Your task to perform on an android device: Play the last video I watched on Youtube Image 0: 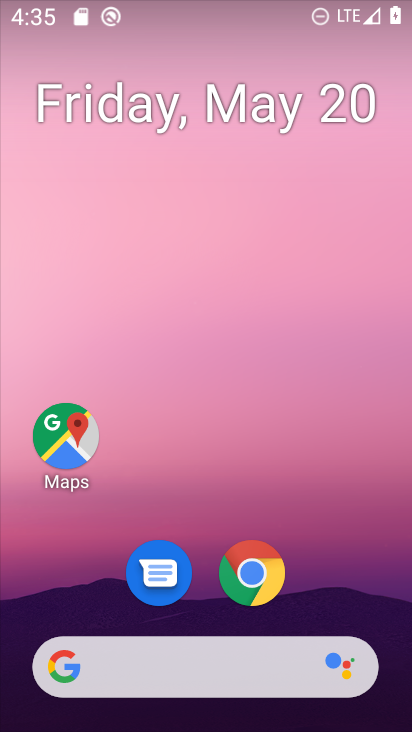
Step 0: drag from (377, 563) to (298, 2)
Your task to perform on an android device: Play the last video I watched on Youtube Image 1: 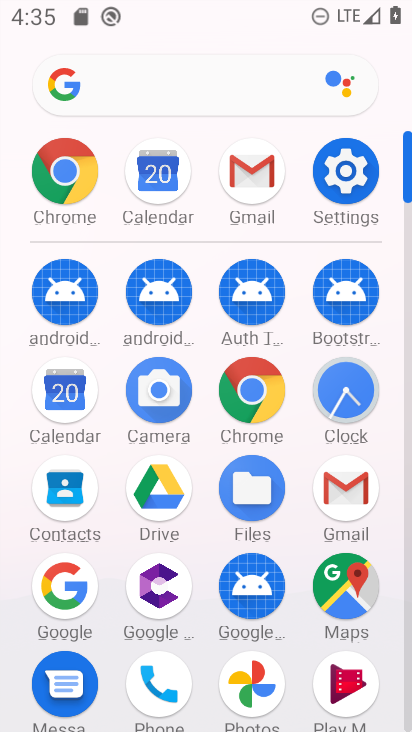
Step 1: click (349, 676)
Your task to perform on an android device: Play the last video I watched on Youtube Image 2: 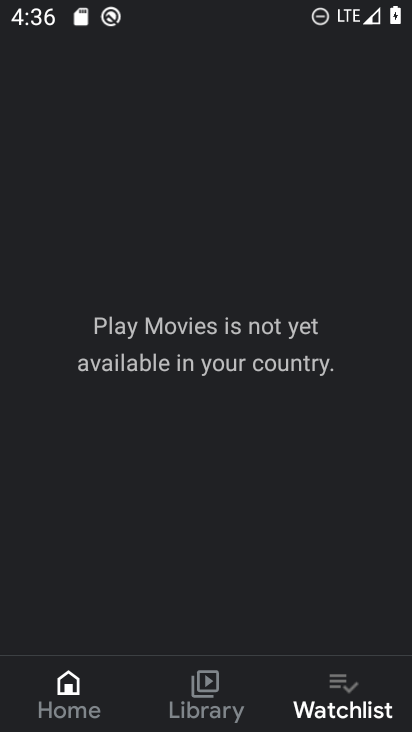
Step 2: press home button
Your task to perform on an android device: Play the last video I watched on Youtube Image 3: 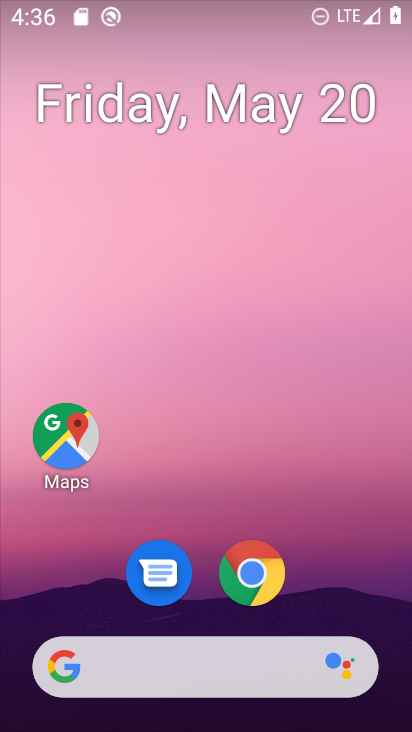
Step 3: drag from (390, 601) to (252, 17)
Your task to perform on an android device: Play the last video I watched on Youtube Image 4: 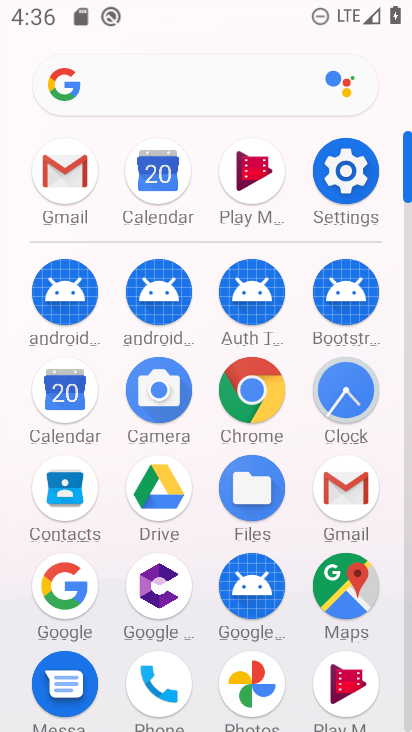
Step 4: click (407, 693)
Your task to perform on an android device: Play the last video I watched on Youtube Image 5: 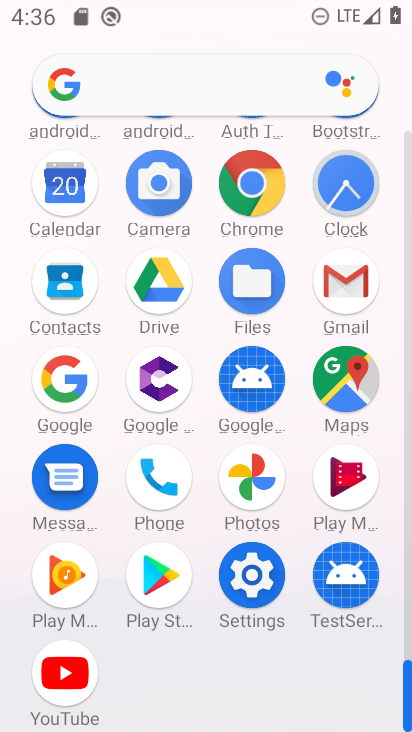
Step 5: click (75, 675)
Your task to perform on an android device: Play the last video I watched on Youtube Image 6: 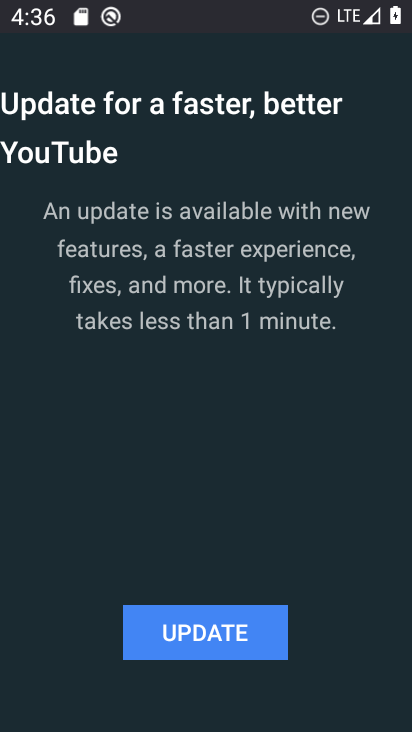
Step 6: click (237, 632)
Your task to perform on an android device: Play the last video I watched on Youtube Image 7: 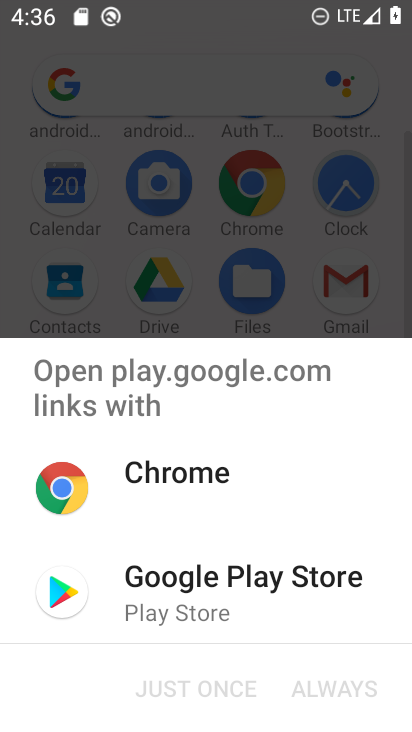
Step 7: click (230, 559)
Your task to perform on an android device: Play the last video I watched on Youtube Image 8: 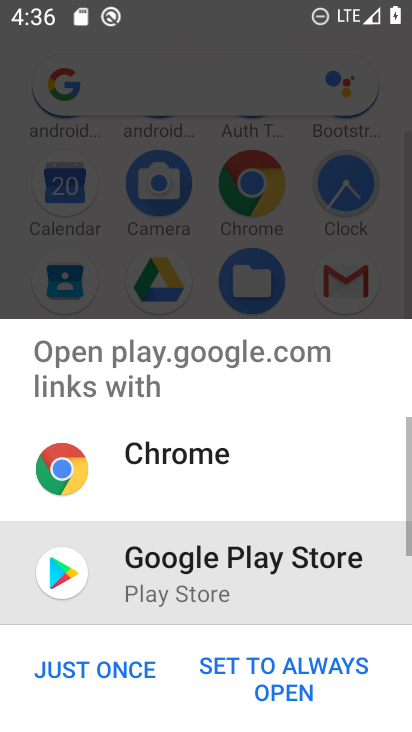
Step 8: click (136, 661)
Your task to perform on an android device: Play the last video I watched on Youtube Image 9: 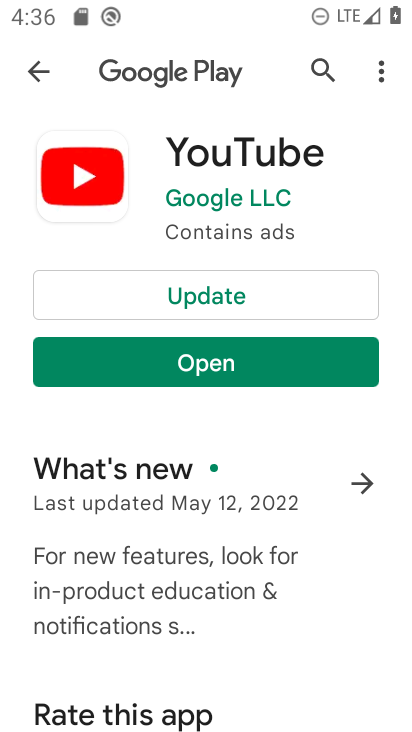
Step 9: click (246, 283)
Your task to perform on an android device: Play the last video I watched on Youtube Image 10: 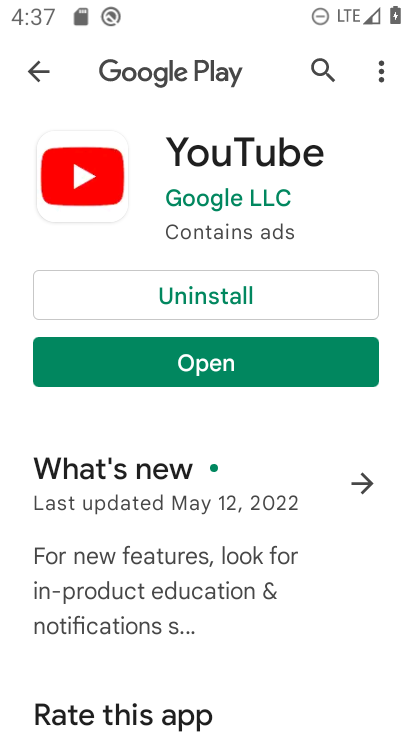
Step 10: click (271, 373)
Your task to perform on an android device: Play the last video I watched on Youtube Image 11: 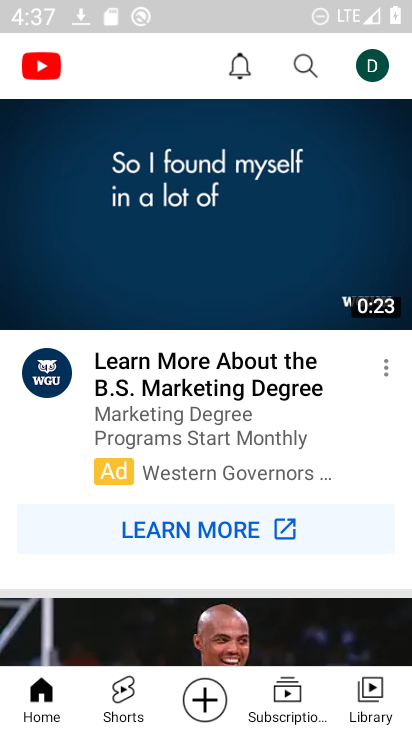
Step 11: click (378, 710)
Your task to perform on an android device: Play the last video I watched on Youtube Image 12: 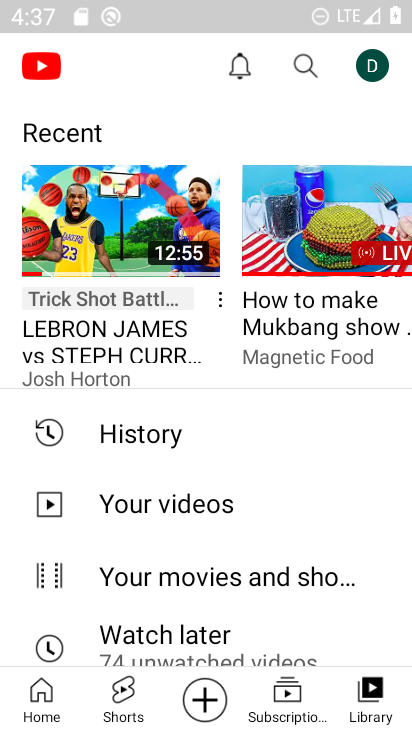
Step 12: click (162, 233)
Your task to perform on an android device: Play the last video I watched on Youtube Image 13: 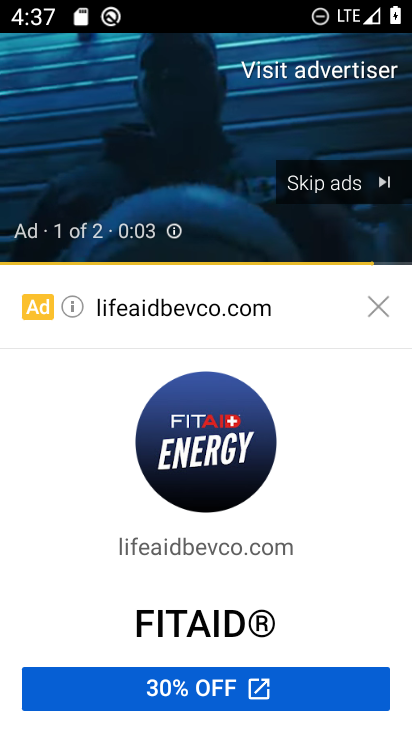
Step 13: task complete